Your task to perform on an android device: Open Google Chrome Image 0: 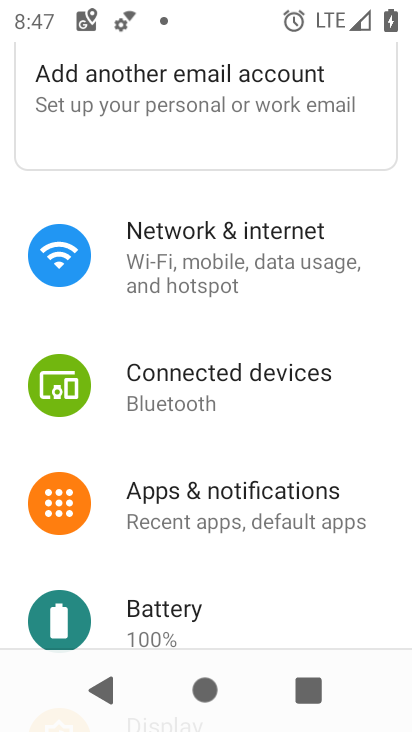
Step 0: press home button
Your task to perform on an android device: Open Google Chrome Image 1: 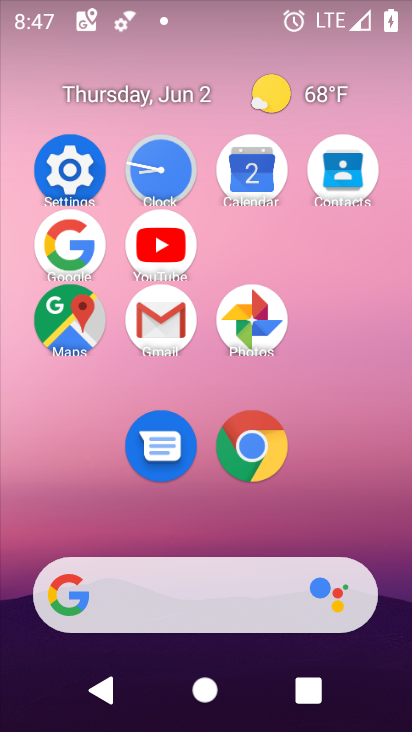
Step 1: click (238, 473)
Your task to perform on an android device: Open Google Chrome Image 2: 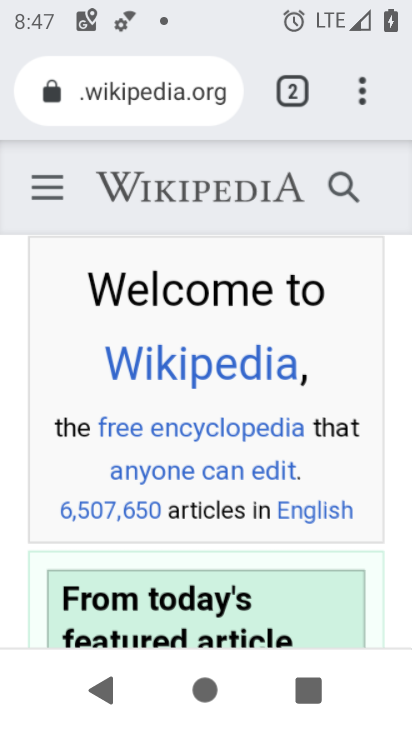
Step 2: task complete